Your task to perform on an android device: change notification settings in the gmail app Image 0: 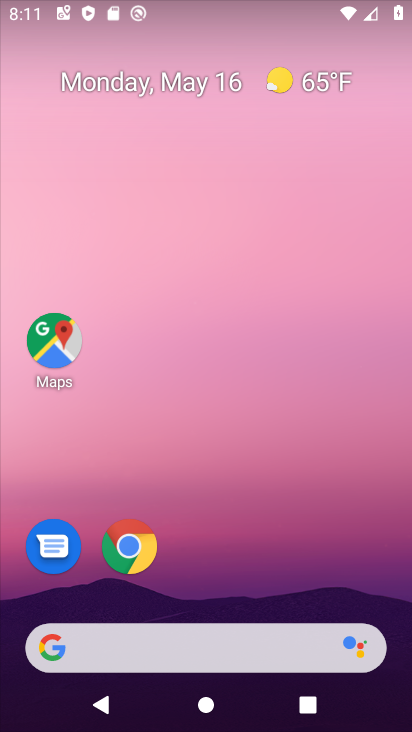
Step 0: drag from (314, 577) to (262, 201)
Your task to perform on an android device: change notification settings in the gmail app Image 1: 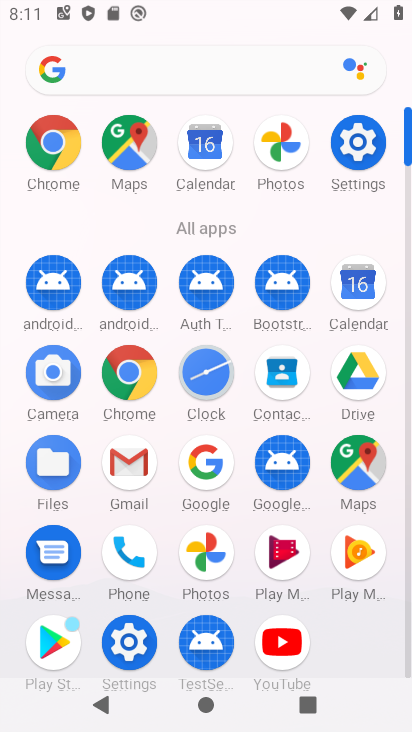
Step 1: click (125, 475)
Your task to perform on an android device: change notification settings in the gmail app Image 2: 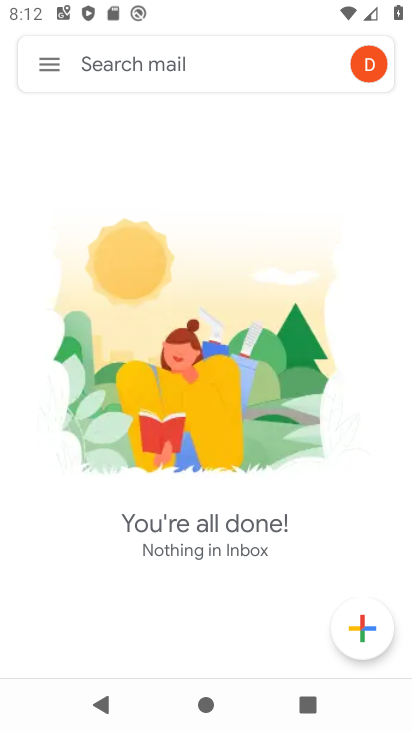
Step 2: click (32, 60)
Your task to perform on an android device: change notification settings in the gmail app Image 3: 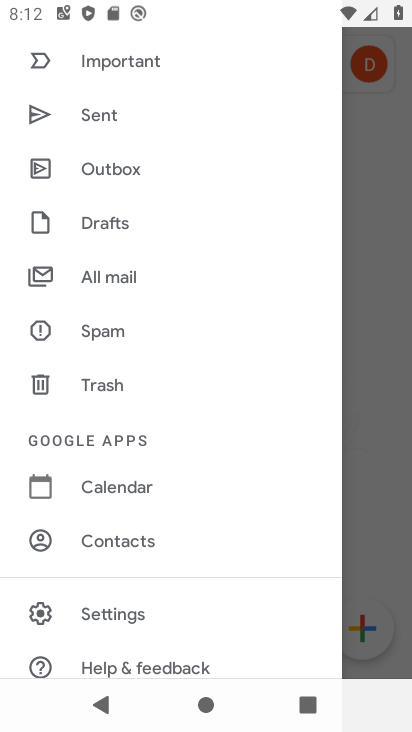
Step 3: click (191, 610)
Your task to perform on an android device: change notification settings in the gmail app Image 4: 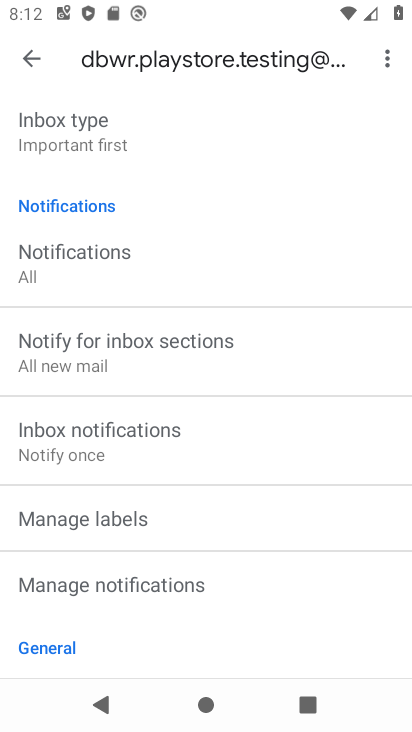
Step 4: click (183, 587)
Your task to perform on an android device: change notification settings in the gmail app Image 5: 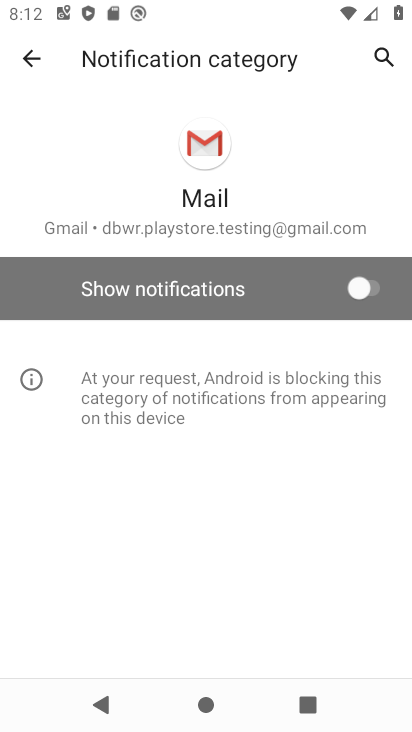
Step 5: click (365, 283)
Your task to perform on an android device: change notification settings in the gmail app Image 6: 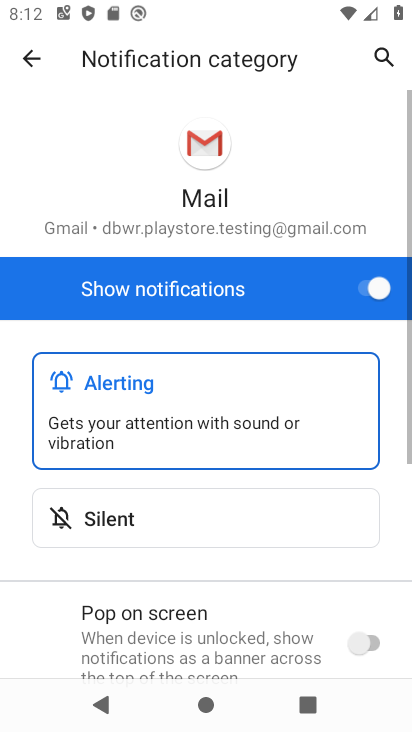
Step 6: task complete